Your task to perform on an android device: Toggle the flashlight Image 0: 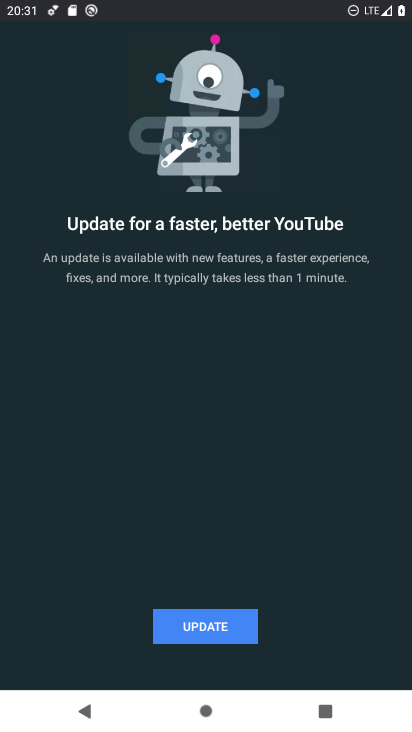
Step 0: press back button
Your task to perform on an android device: Toggle the flashlight Image 1: 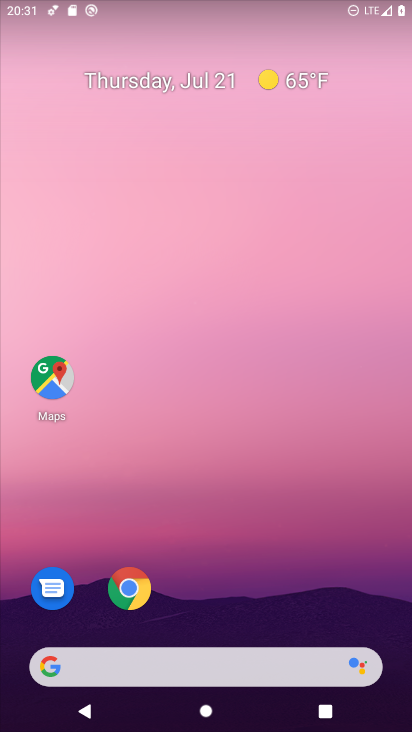
Step 1: drag from (195, 645) to (174, 4)
Your task to perform on an android device: Toggle the flashlight Image 2: 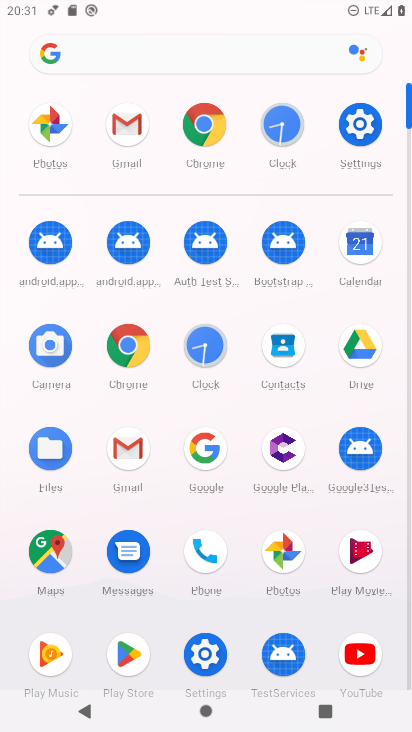
Step 2: click (346, 118)
Your task to perform on an android device: Toggle the flashlight Image 3: 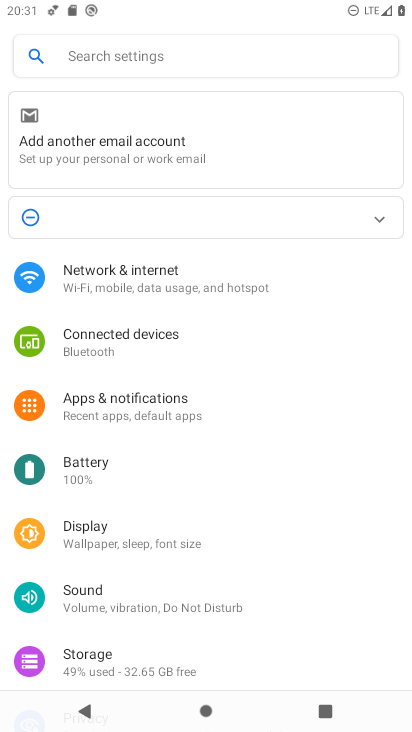
Step 3: task complete